Your task to perform on an android device: change notifications settings Image 0: 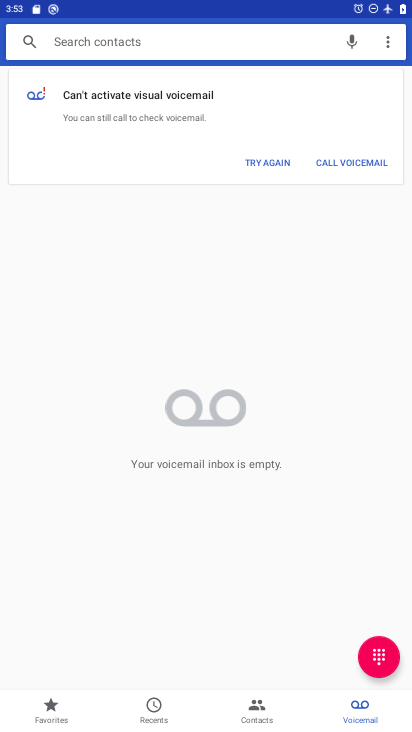
Step 0: press home button
Your task to perform on an android device: change notifications settings Image 1: 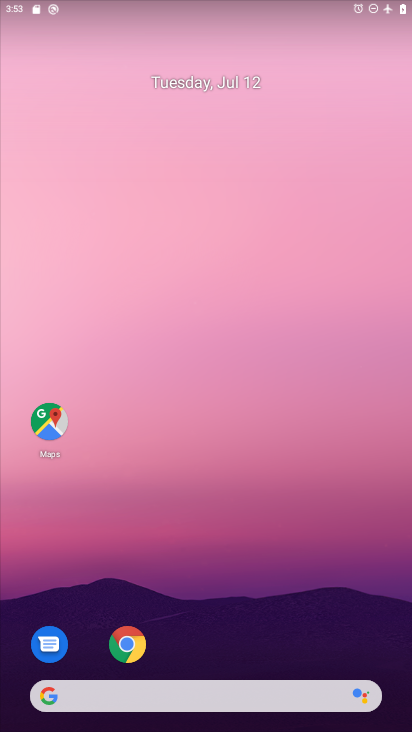
Step 1: drag from (257, 561) to (192, 37)
Your task to perform on an android device: change notifications settings Image 2: 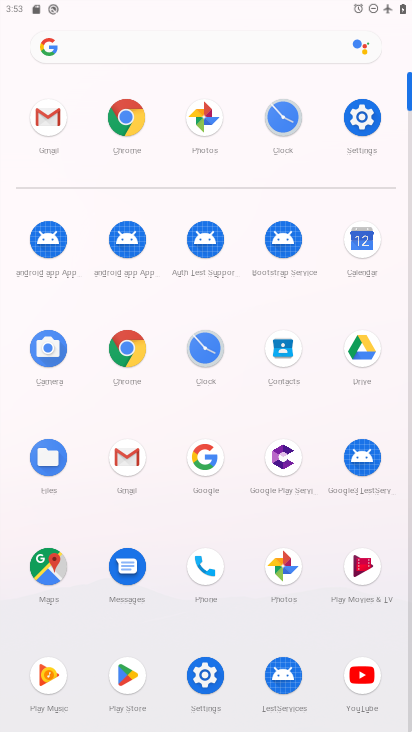
Step 2: click (358, 117)
Your task to perform on an android device: change notifications settings Image 3: 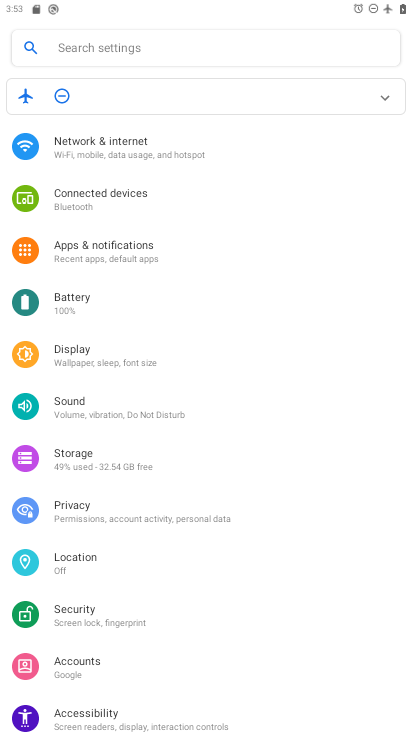
Step 3: click (127, 252)
Your task to perform on an android device: change notifications settings Image 4: 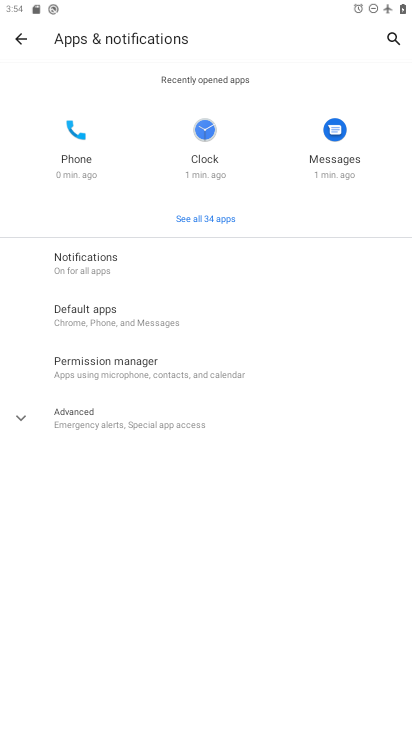
Step 4: click (94, 265)
Your task to perform on an android device: change notifications settings Image 5: 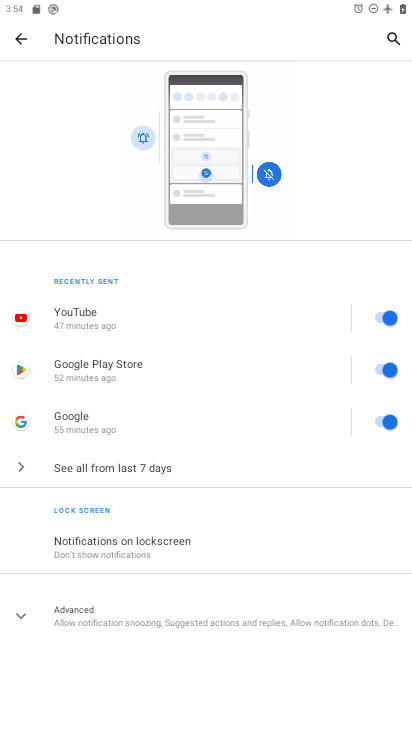
Step 5: click (220, 629)
Your task to perform on an android device: change notifications settings Image 6: 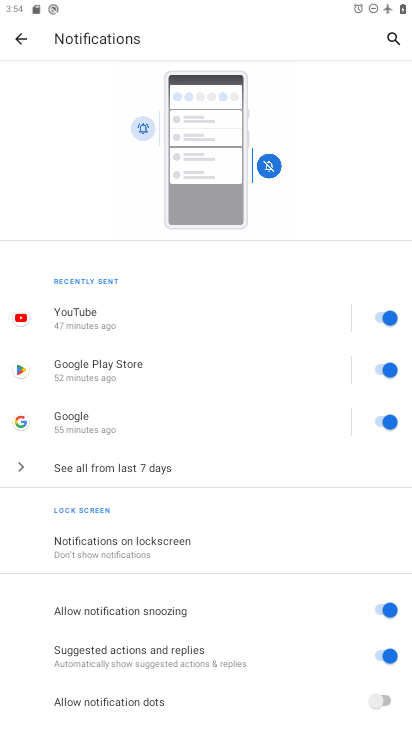
Step 6: click (379, 701)
Your task to perform on an android device: change notifications settings Image 7: 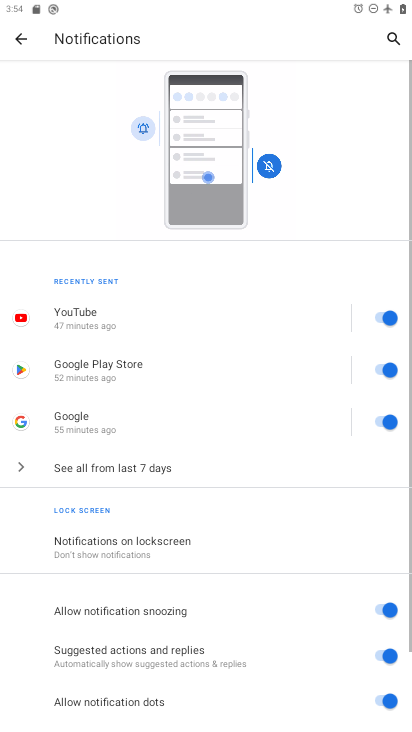
Step 7: task complete